Your task to perform on an android device: Open Google Chrome Image 0: 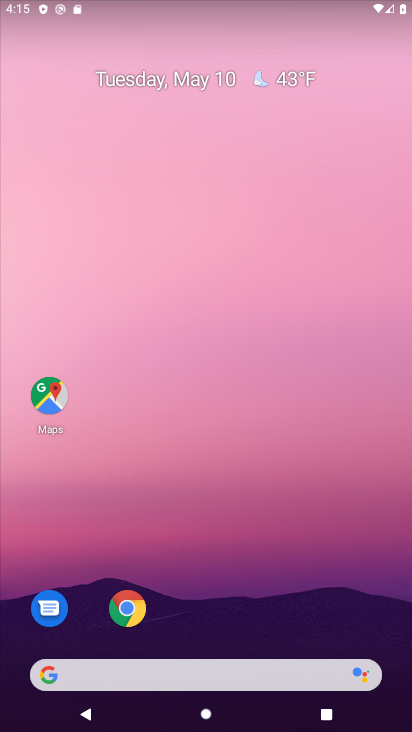
Step 0: drag from (213, 435) to (14, 14)
Your task to perform on an android device: Open Google Chrome Image 1: 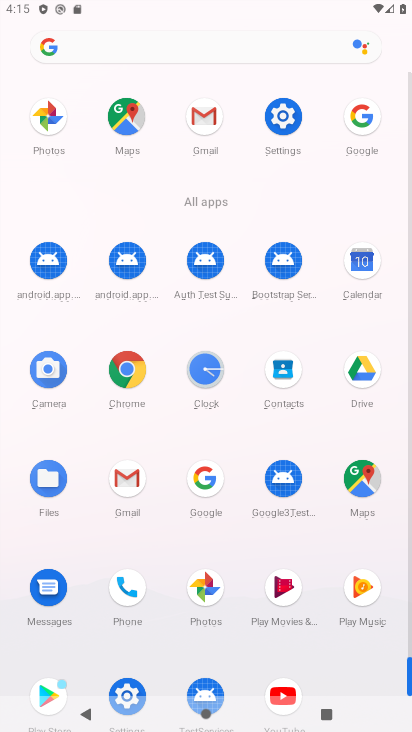
Step 1: click (123, 366)
Your task to perform on an android device: Open Google Chrome Image 2: 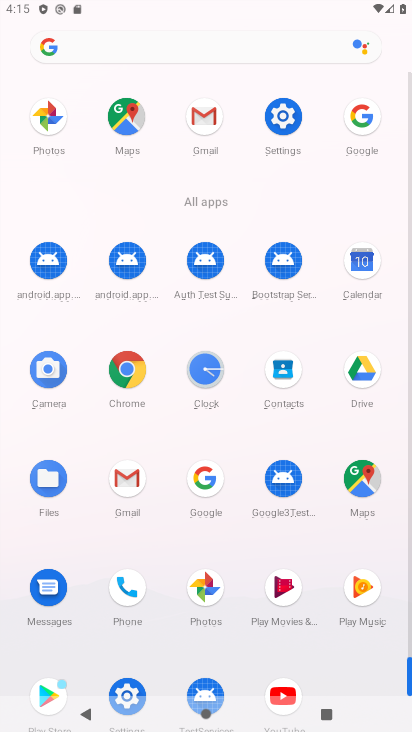
Step 2: click (121, 361)
Your task to perform on an android device: Open Google Chrome Image 3: 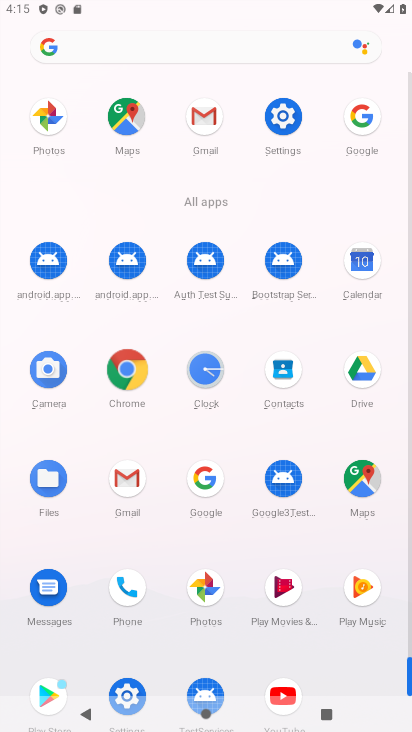
Step 3: click (121, 361)
Your task to perform on an android device: Open Google Chrome Image 4: 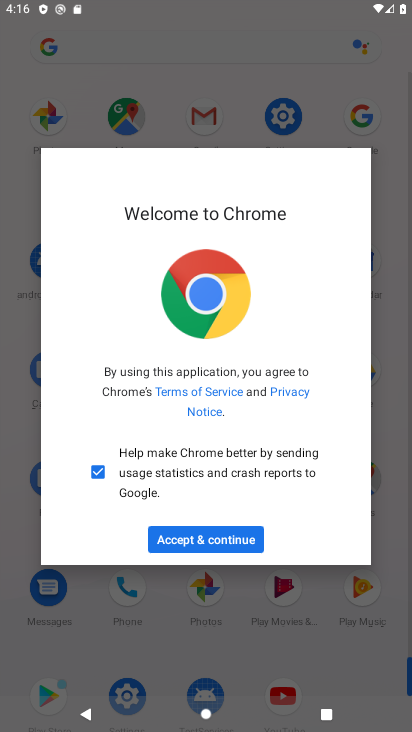
Step 4: click (180, 538)
Your task to perform on an android device: Open Google Chrome Image 5: 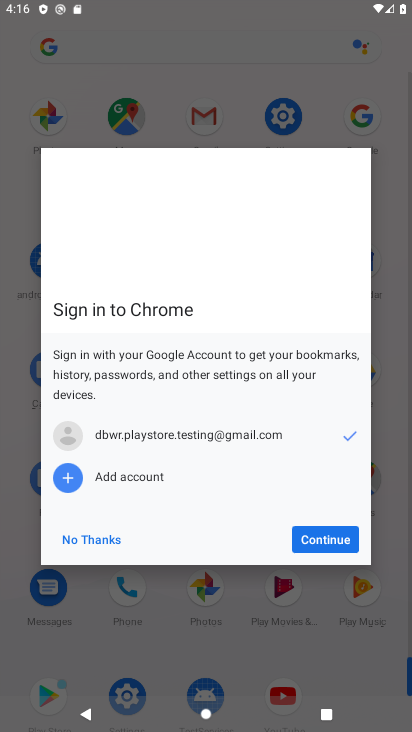
Step 5: click (315, 536)
Your task to perform on an android device: Open Google Chrome Image 6: 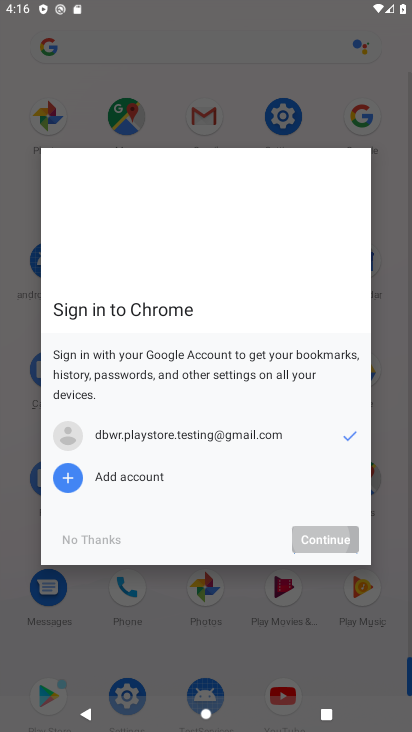
Step 6: click (320, 540)
Your task to perform on an android device: Open Google Chrome Image 7: 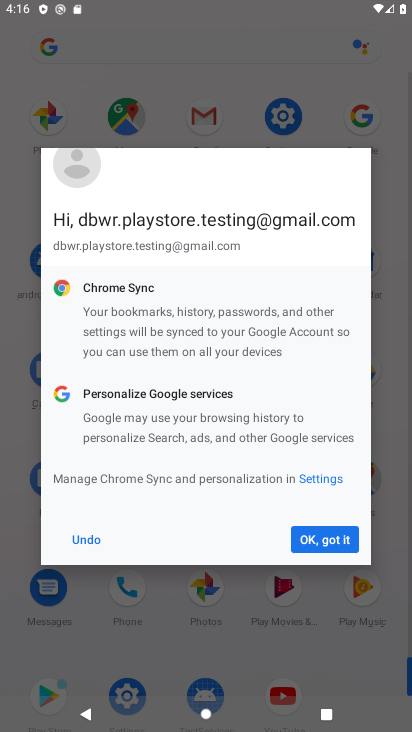
Step 7: click (319, 531)
Your task to perform on an android device: Open Google Chrome Image 8: 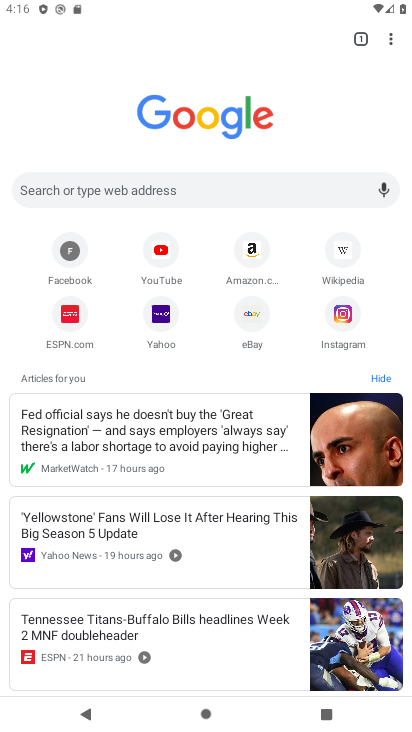
Step 8: click (387, 41)
Your task to perform on an android device: Open Google Chrome Image 9: 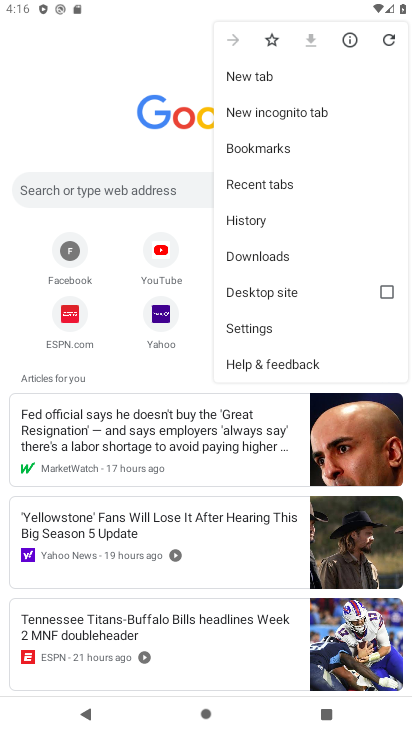
Step 9: click (252, 325)
Your task to perform on an android device: Open Google Chrome Image 10: 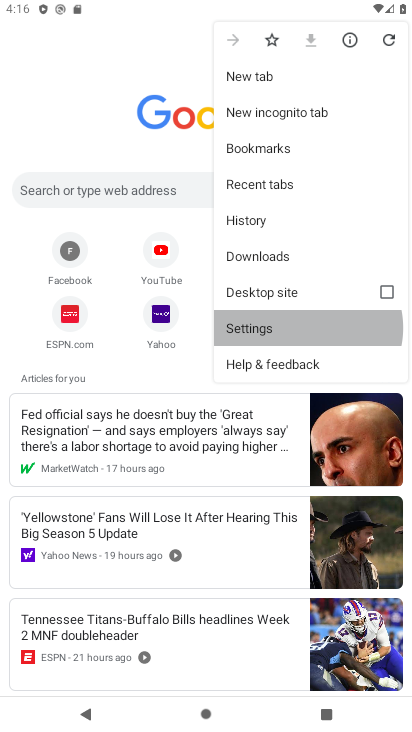
Step 10: click (251, 328)
Your task to perform on an android device: Open Google Chrome Image 11: 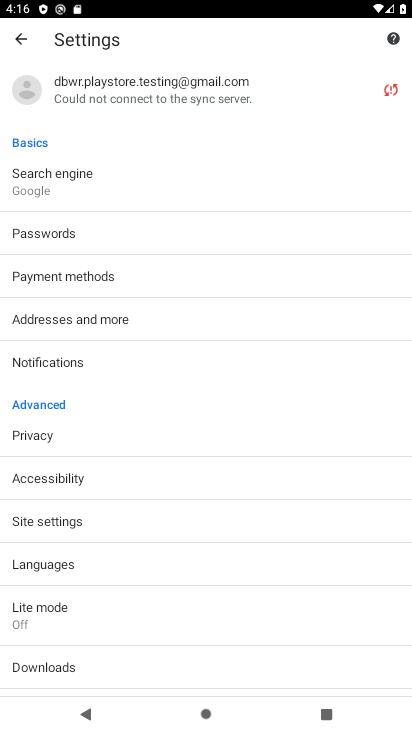
Step 11: drag from (79, 510) to (9, 14)
Your task to perform on an android device: Open Google Chrome Image 12: 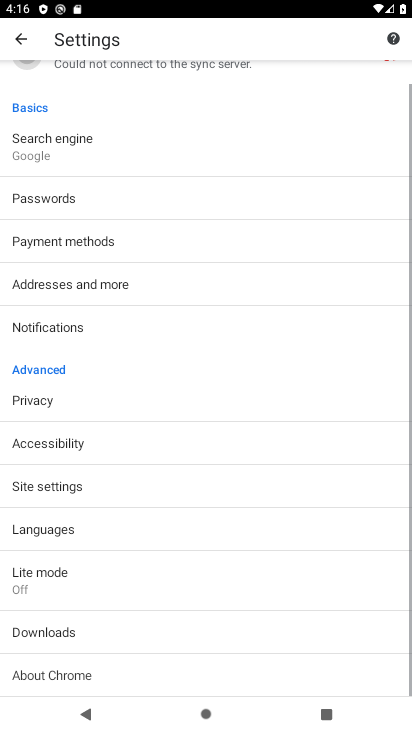
Step 12: drag from (208, 458) to (39, 15)
Your task to perform on an android device: Open Google Chrome Image 13: 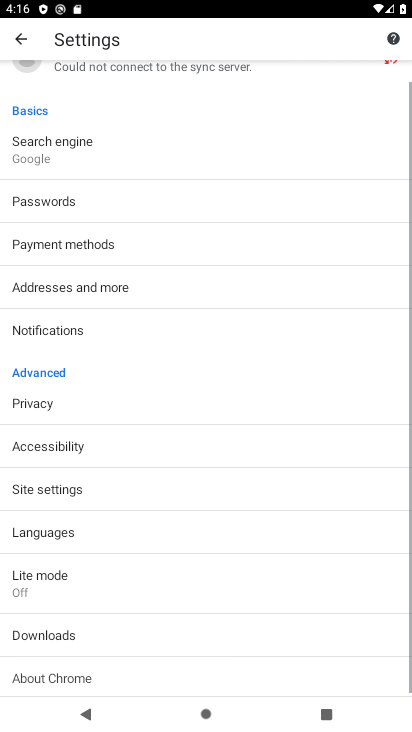
Step 13: drag from (232, 506) to (97, 6)
Your task to perform on an android device: Open Google Chrome Image 14: 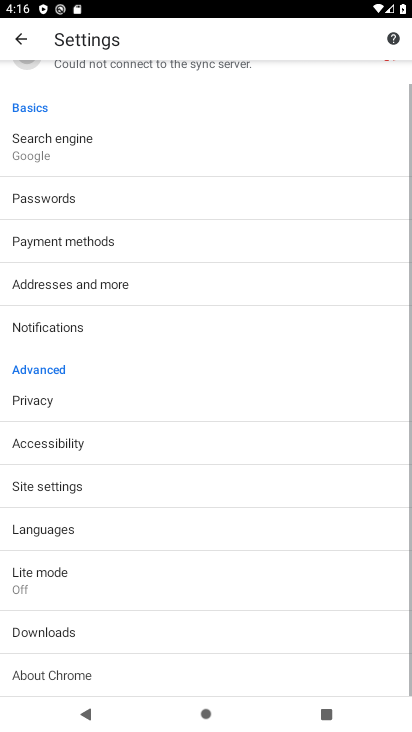
Step 14: drag from (232, 273) to (77, 19)
Your task to perform on an android device: Open Google Chrome Image 15: 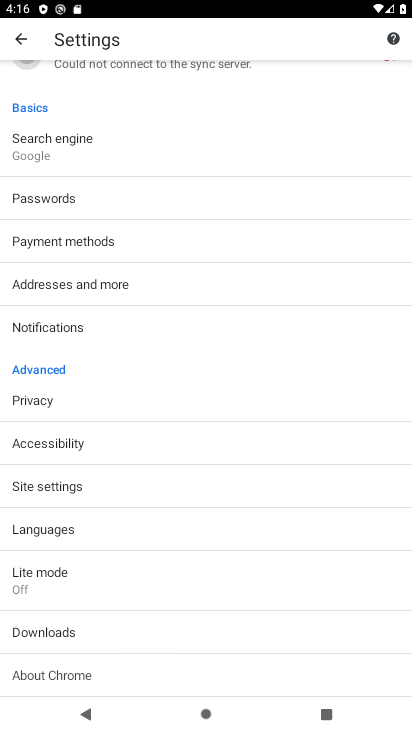
Step 15: drag from (100, 395) to (14, 8)
Your task to perform on an android device: Open Google Chrome Image 16: 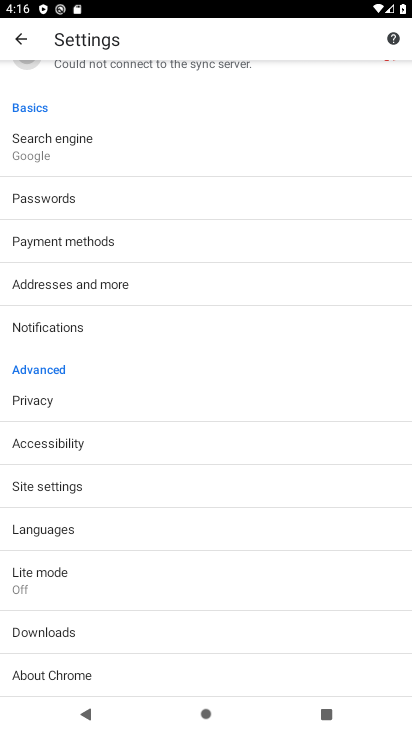
Step 16: click (22, 39)
Your task to perform on an android device: Open Google Chrome Image 17: 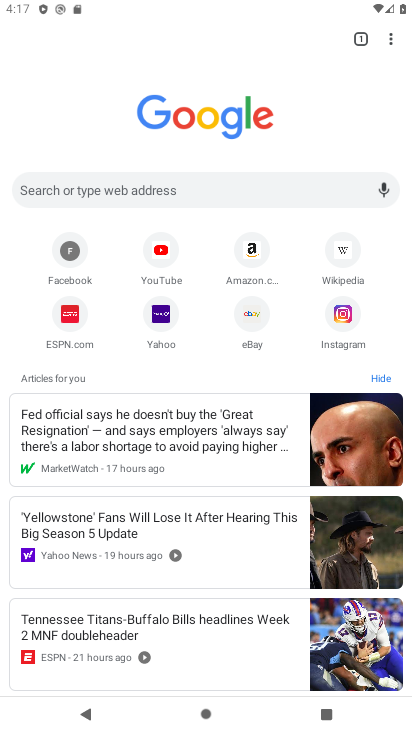
Step 17: task complete